Your task to perform on an android device: When is my next appointment? Image 0: 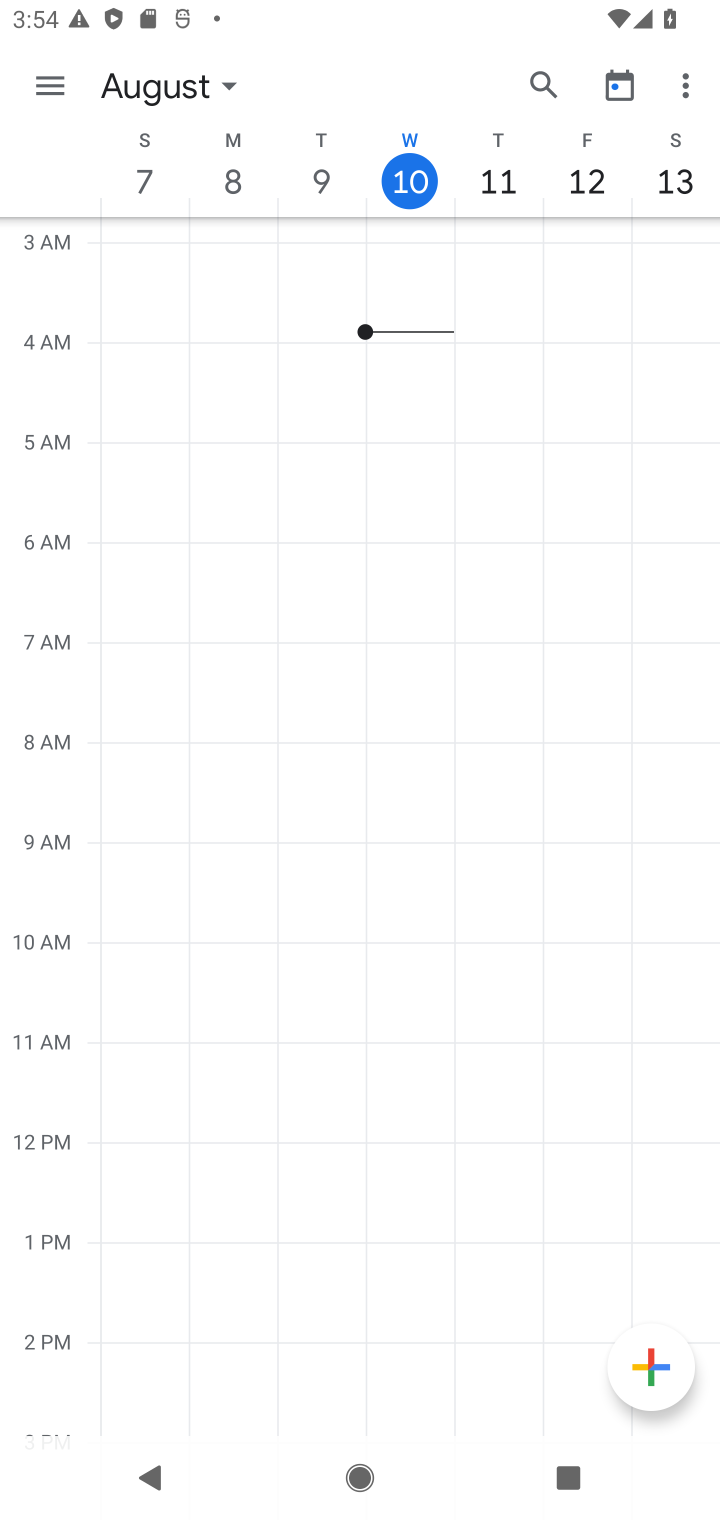
Step 0: task impossible